Your task to perform on an android device: turn off priority inbox in the gmail app Image 0: 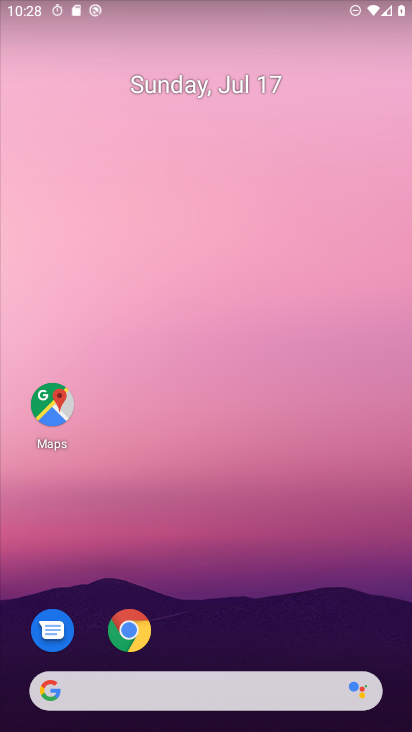
Step 0: drag from (214, 669) to (231, 213)
Your task to perform on an android device: turn off priority inbox in the gmail app Image 1: 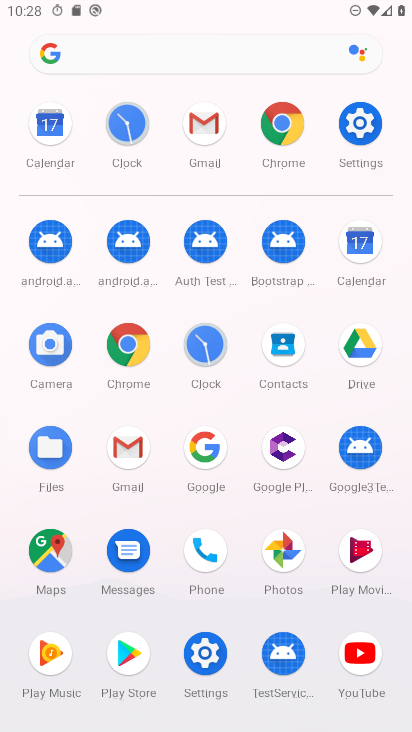
Step 1: click (201, 125)
Your task to perform on an android device: turn off priority inbox in the gmail app Image 2: 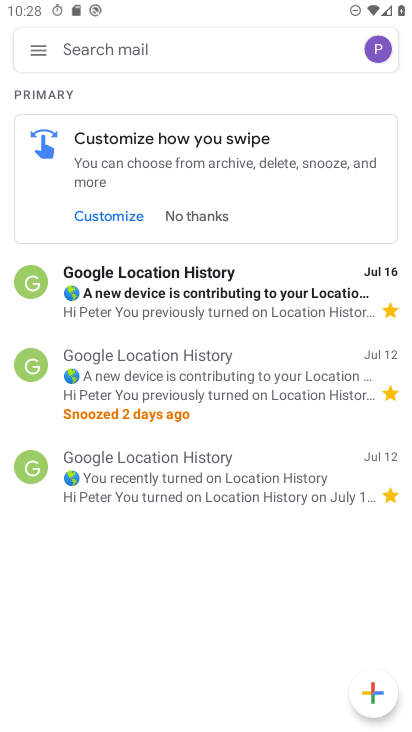
Step 2: click (45, 39)
Your task to perform on an android device: turn off priority inbox in the gmail app Image 3: 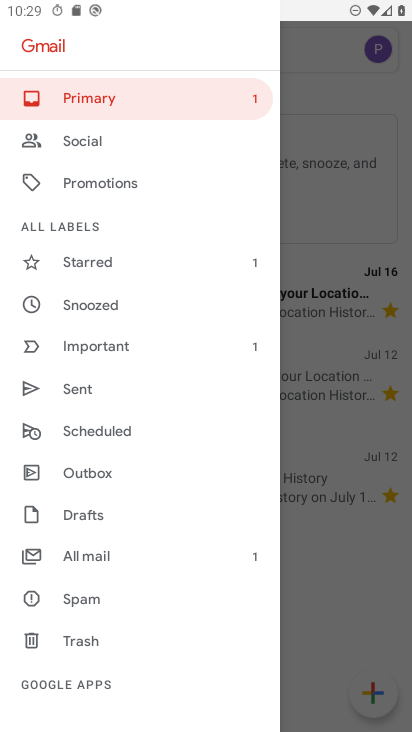
Step 3: drag from (86, 652) to (153, 112)
Your task to perform on an android device: turn off priority inbox in the gmail app Image 4: 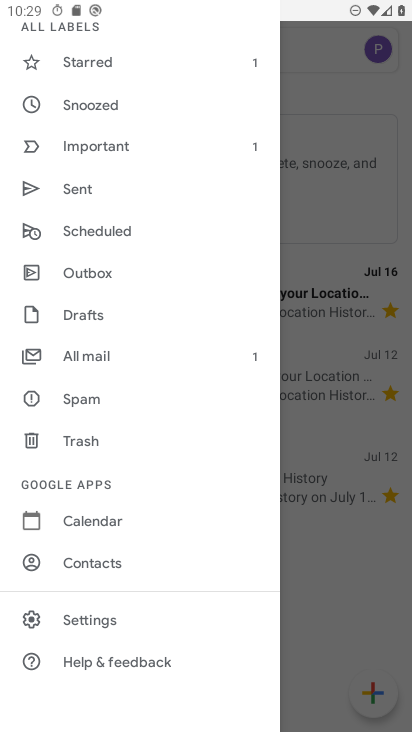
Step 4: click (81, 613)
Your task to perform on an android device: turn off priority inbox in the gmail app Image 5: 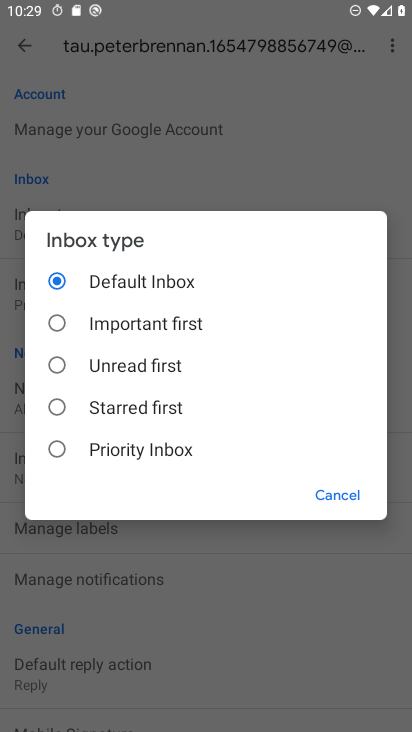
Step 5: task complete